Your task to perform on an android device: toggle notification dots Image 0: 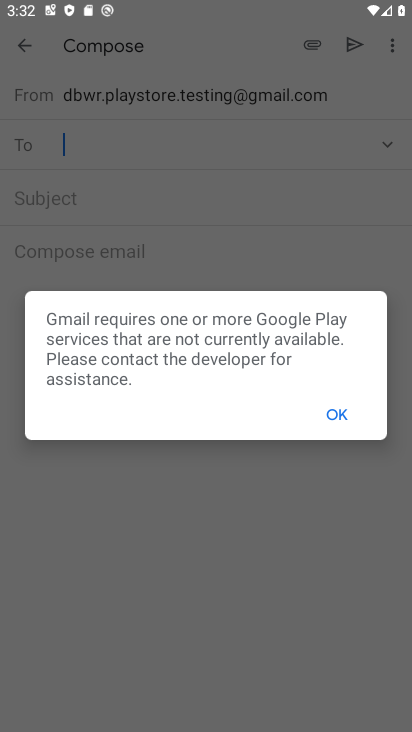
Step 0: press home button
Your task to perform on an android device: toggle notification dots Image 1: 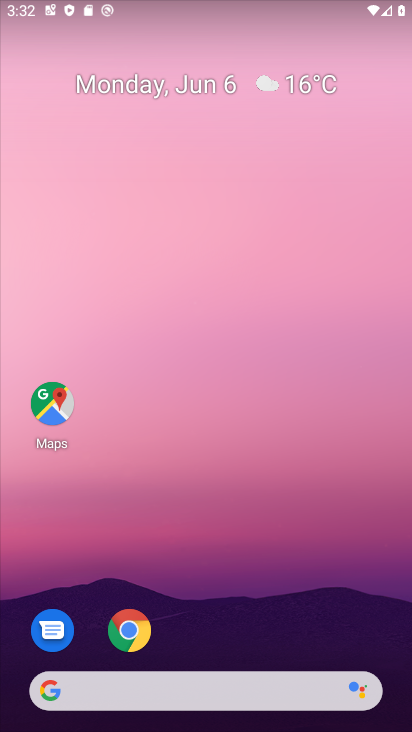
Step 1: drag from (284, 604) to (173, 73)
Your task to perform on an android device: toggle notification dots Image 2: 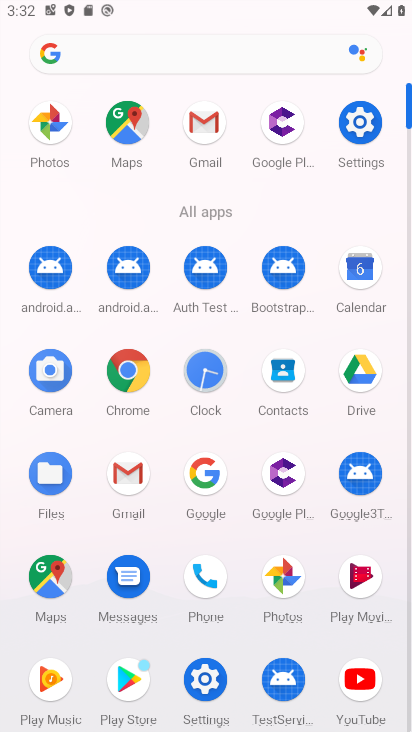
Step 2: click (358, 122)
Your task to perform on an android device: toggle notification dots Image 3: 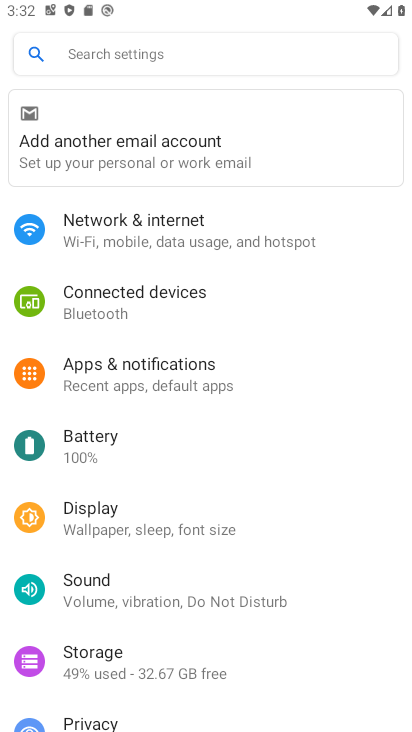
Step 3: click (154, 371)
Your task to perform on an android device: toggle notification dots Image 4: 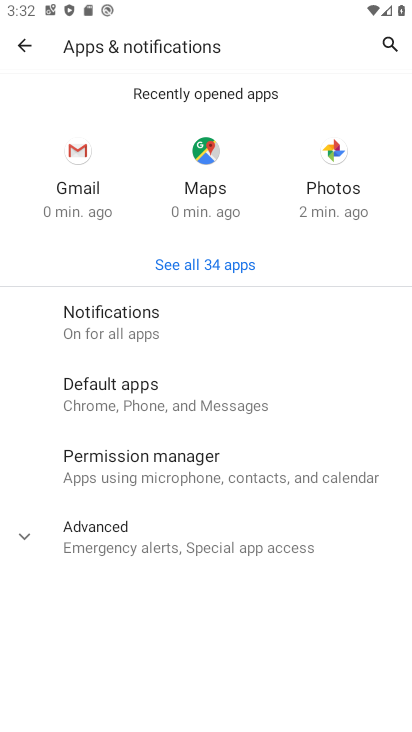
Step 4: click (181, 520)
Your task to perform on an android device: toggle notification dots Image 5: 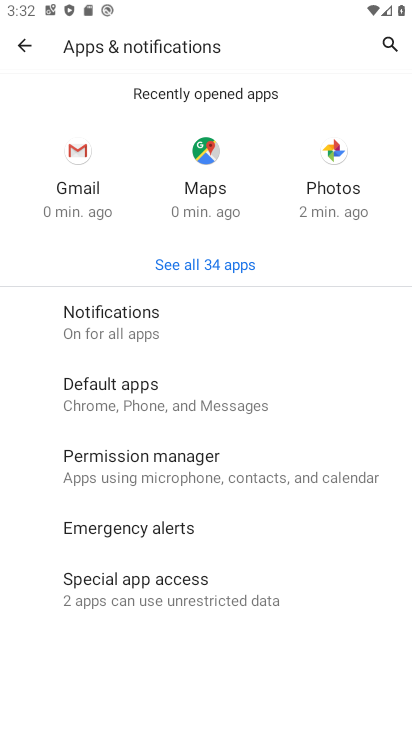
Step 5: drag from (179, 595) to (213, 141)
Your task to perform on an android device: toggle notification dots Image 6: 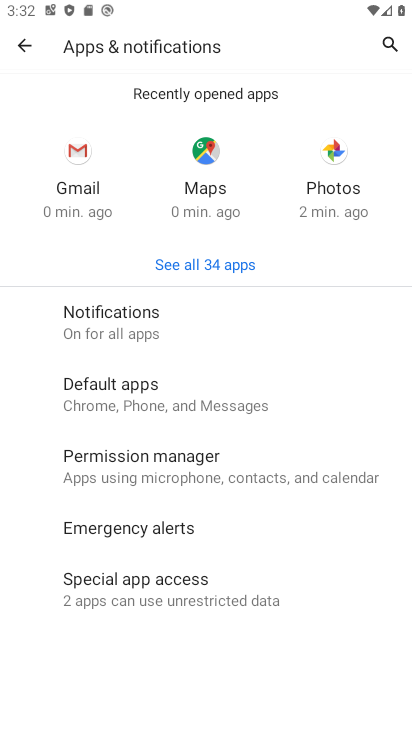
Step 6: click (191, 324)
Your task to perform on an android device: toggle notification dots Image 7: 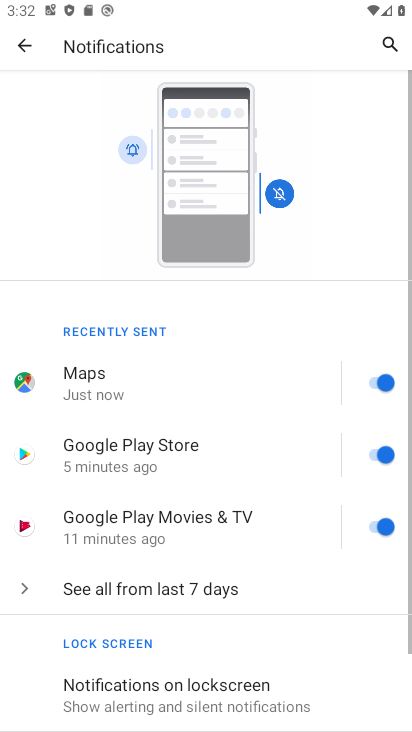
Step 7: drag from (178, 534) to (172, 30)
Your task to perform on an android device: toggle notification dots Image 8: 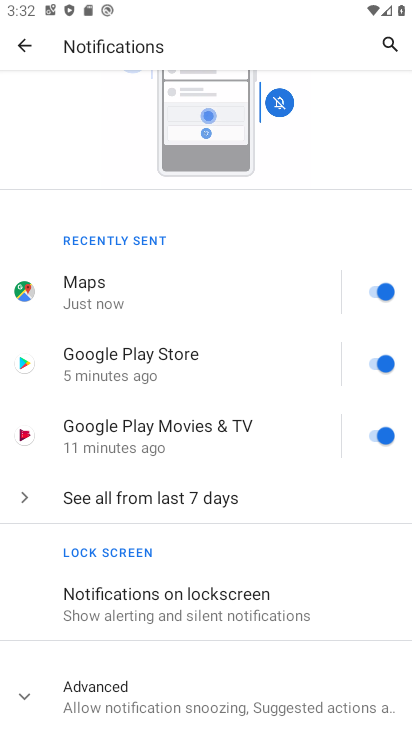
Step 8: click (171, 710)
Your task to perform on an android device: toggle notification dots Image 9: 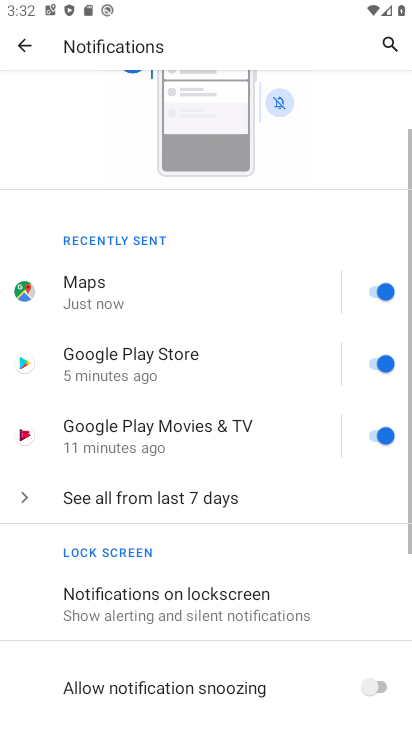
Step 9: drag from (191, 637) to (224, 278)
Your task to perform on an android device: toggle notification dots Image 10: 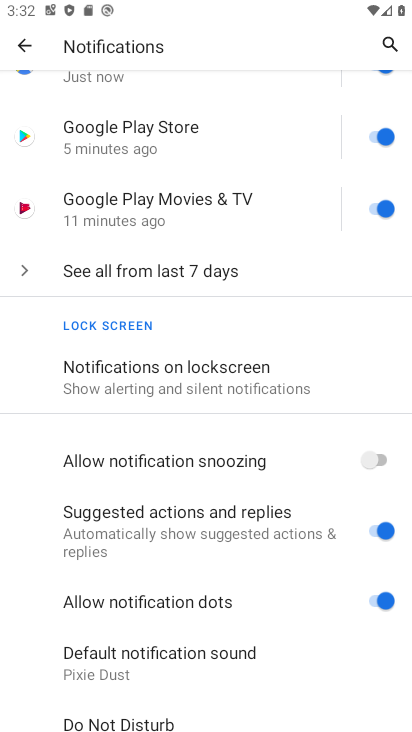
Step 10: click (389, 604)
Your task to perform on an android device: toggle notification dots Image 11: 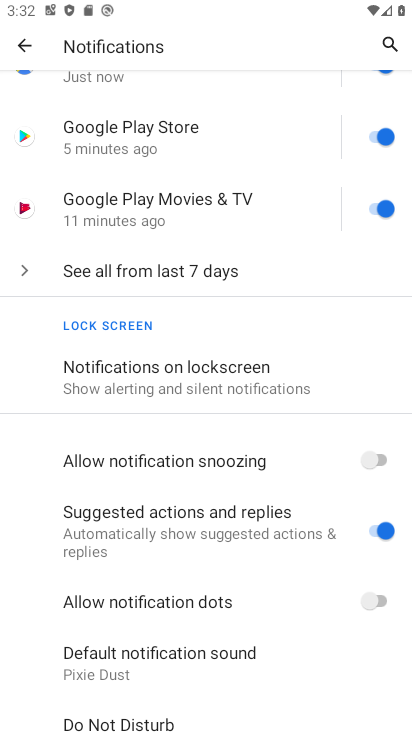
Step 11: task complete